Your task to perform on an android device: find photos in the google photos app Image 0: 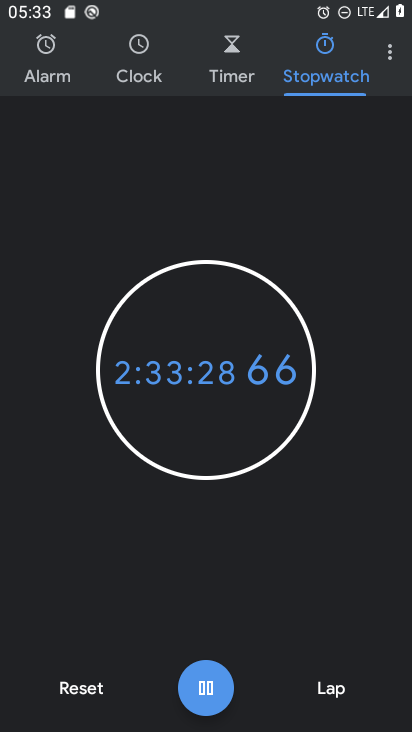
Step 0: press home button
Your task to perform on an android device: find photos in the google photos app Image 1: 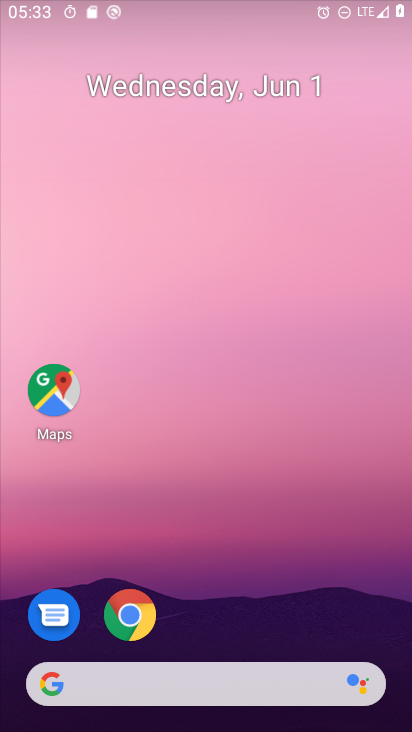
Step 1: drag from (306, 682) to (308, 96)
Your task to perform on an android device: find photos in the google photos app Image 2: 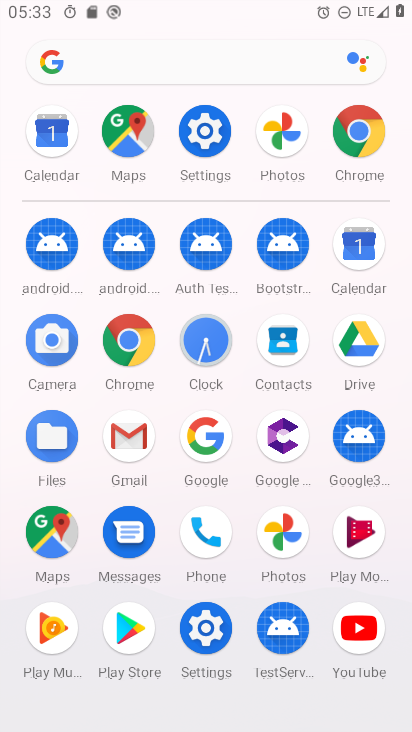
Step 2: click (276, 534)
Your task to perform on an android device: find photos in the google photos app Image 3: 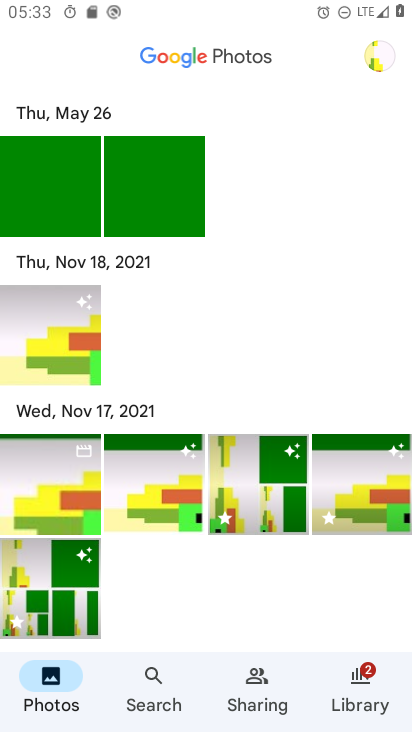
Step 3: task complete